Your task to perform on an android device: Search for sushi restaurants on Maps Image 0: 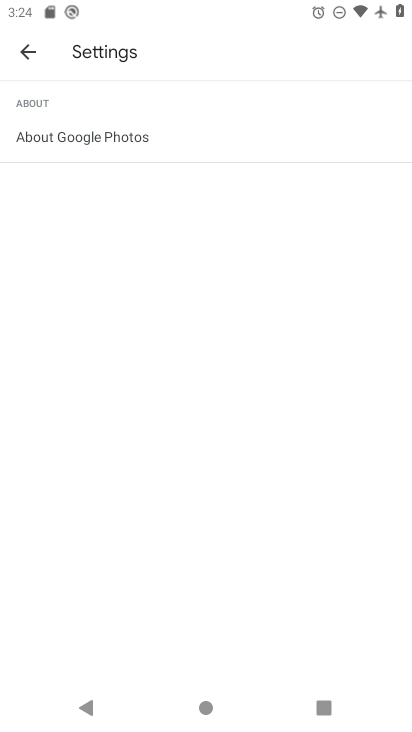
Step 0: press home button
Your task to perform on an android device: Search for sushi restaurants on Maps Image 1: 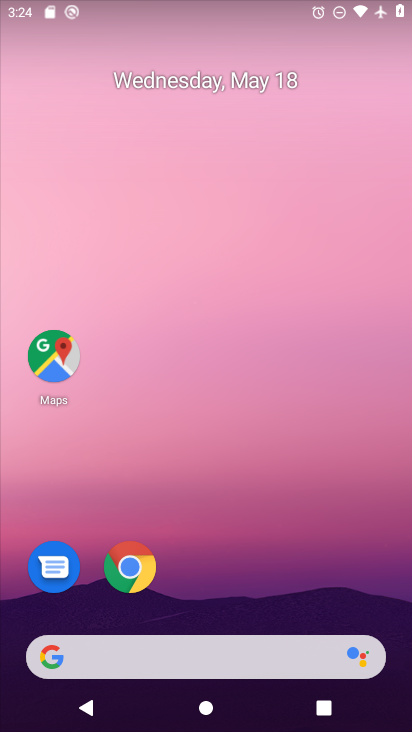
Step 1: click (68, 345)
Your task to perform on an android device: Search for sushi restaurants on Maps Image 2: 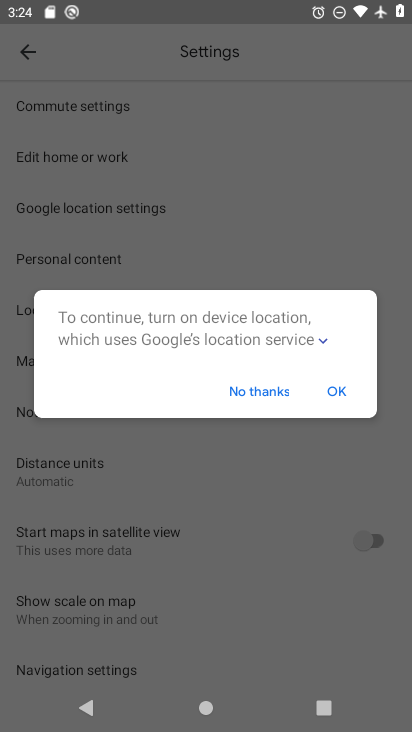
Step 2: click (336, 388)
Your task to perform on an android device: Search for sushi restaurants on Maps Image 3: 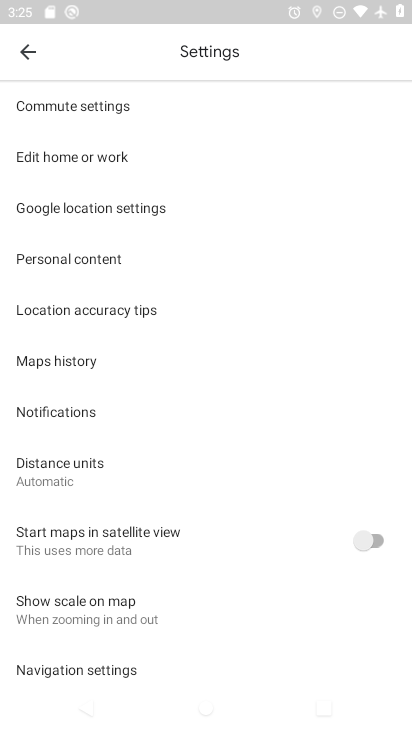
Step 3: click (31, 49)
Your task to perform on an android device: Search for sushi restaurants on Maps Image 4: 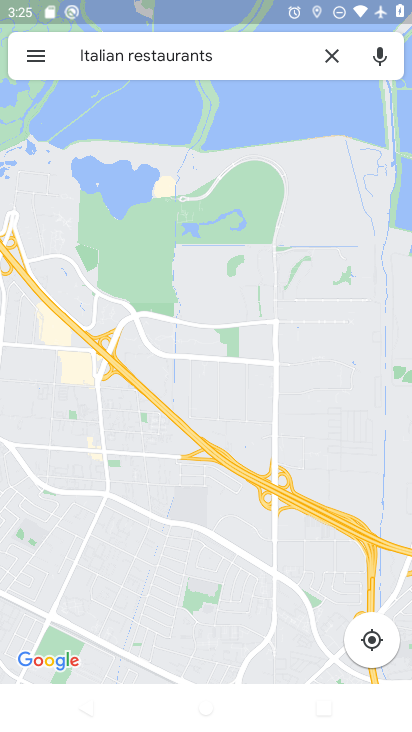
Step 4: click (333, 49)
Your task to perform on an android device: Search for sushi restaurants on Maps Image 5: 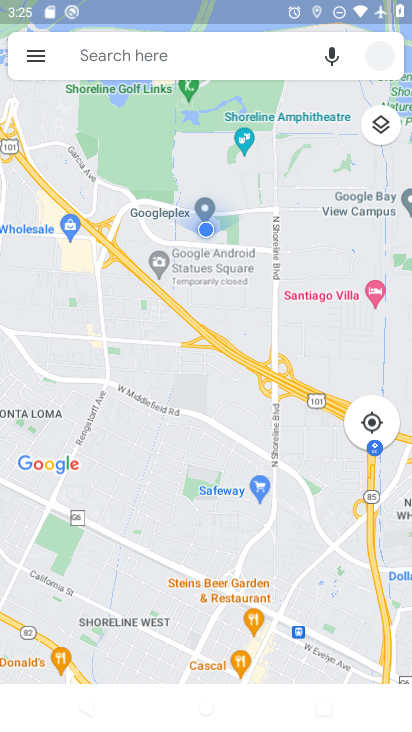
Step 5: click (185, 45)
Your task to perform on an android device: Search for sushi restaurants on Maps Image 6: 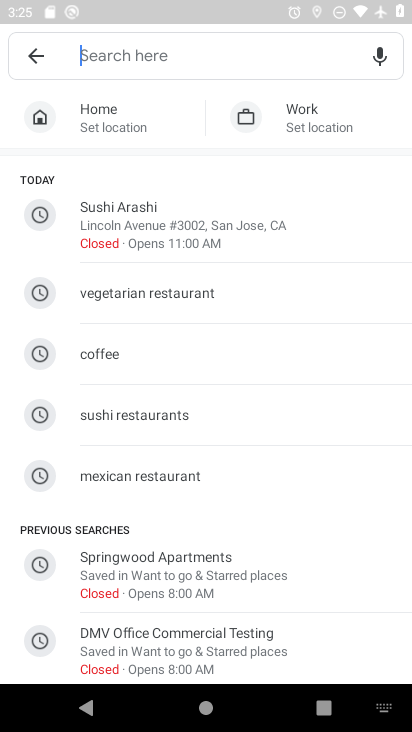
Step 6: click (159, 412)
Your task to perform on an android device: Search for sushi restaurants on Maps Image 7: 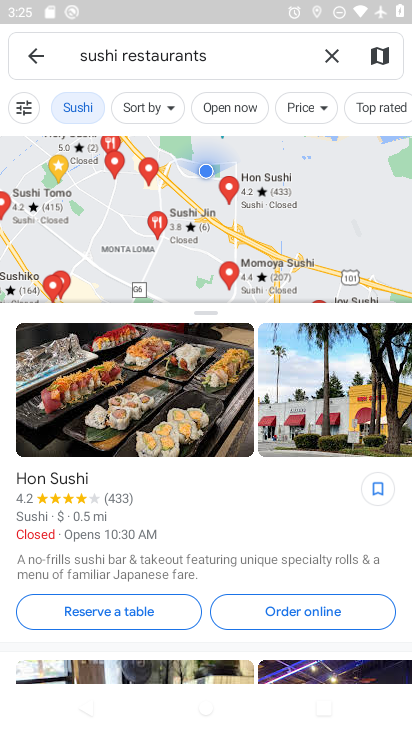
Step 7: task complete